Your task to perform on an android device: Open accessibility settings Image 0: 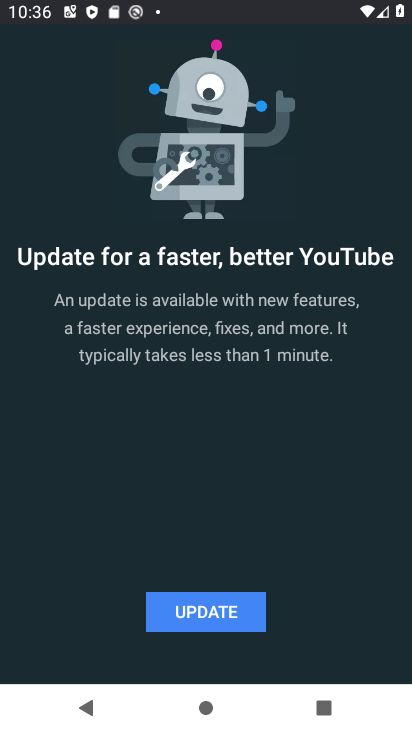
Step 0: press home button
Your task to perform on an android device: Open accessibility settings Image 1: 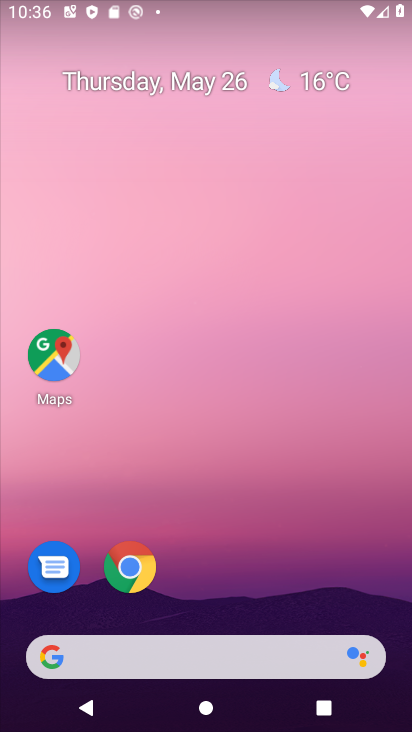
Step 1: drag from (241, 178) to (252, 1)
Your task to perform on an android device: Open accessibility settings Image 2: 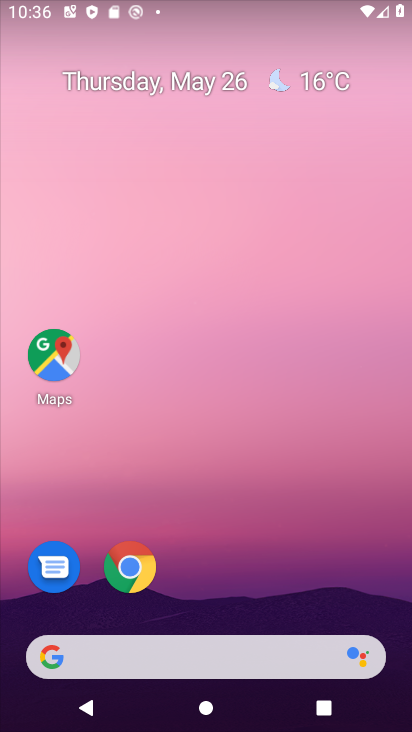
Step 2: drag from (213, 433) to (227, 36)
Your task to perform on an android device: Open accessibility settings Image 3: 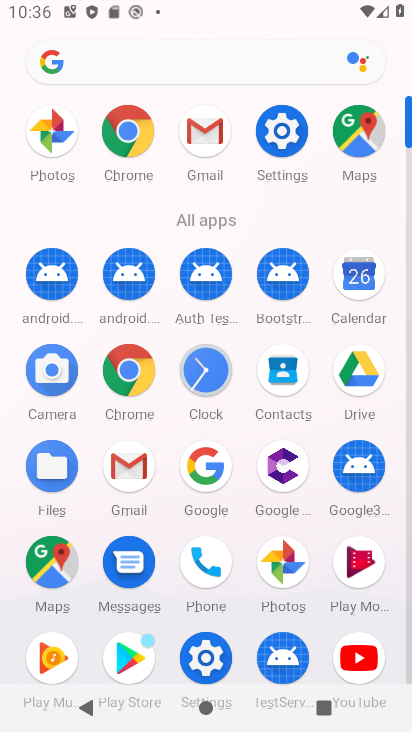
Step 3: click (206, 653)
Your task to perform on an android device: Open accessibility settings Image 4: 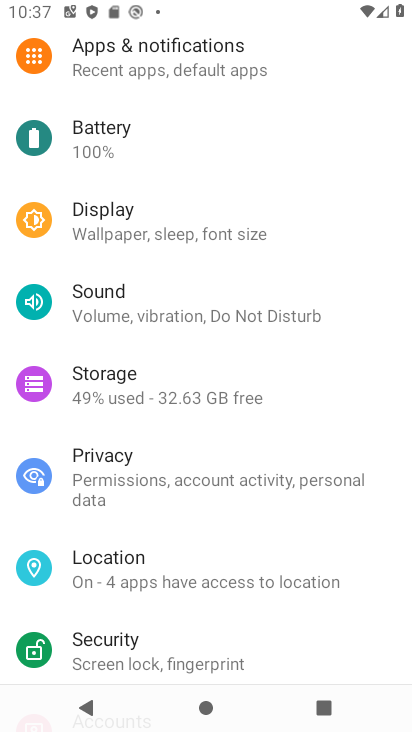
Step 4: drag from (214, 346) to (231, 155)
Your task to perform on an android device: Open accessibility settings Image 5: 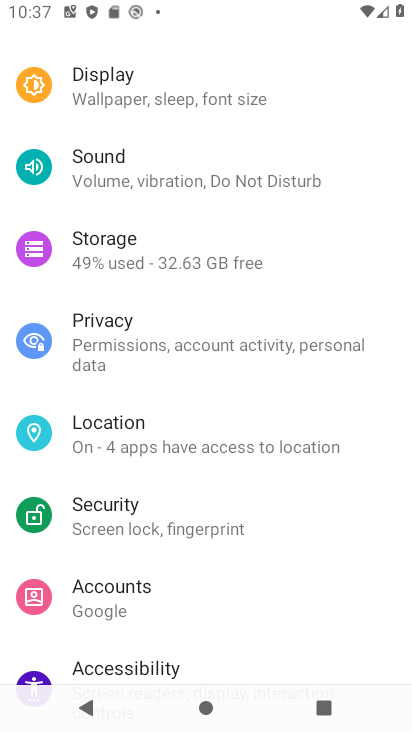
Step 5: click (199, 663)
Your task to perform on an android device: Open accessibility settings Image 6: 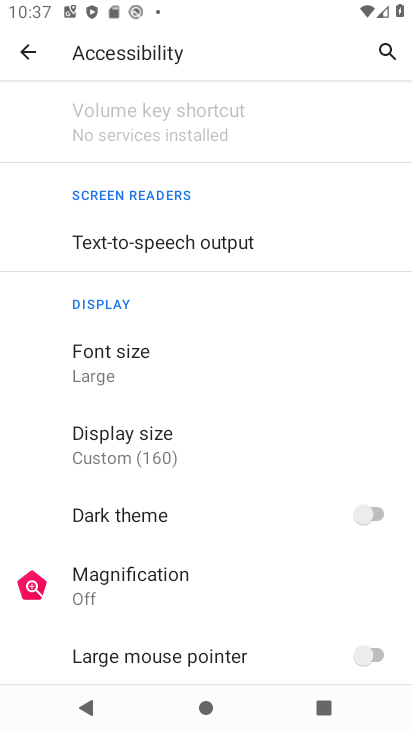
Step 6: task complete